Your task to perform on an android device: toggle javascript in the chrome app Image 0: 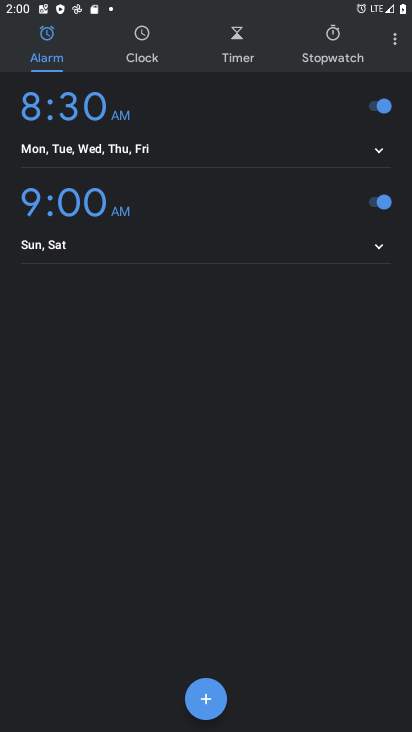
Step 0: press home button
Your task to perform on an android device: toggle javascript in the chrome app Image 1: 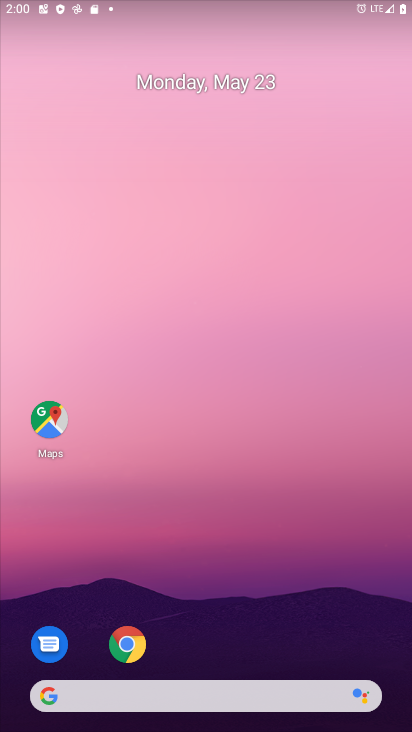
Step 1: drag from (290, 608) to (279, 92)
Your task to perform on an android device: toggle javascript in the chrome app Image 2: 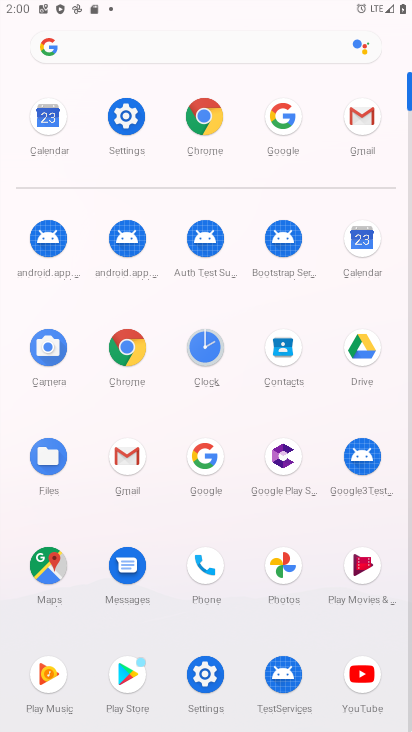
Step 2: click (211, 122)
Your task to perform on an android device: toggle javascript in the chrome app Image 3: 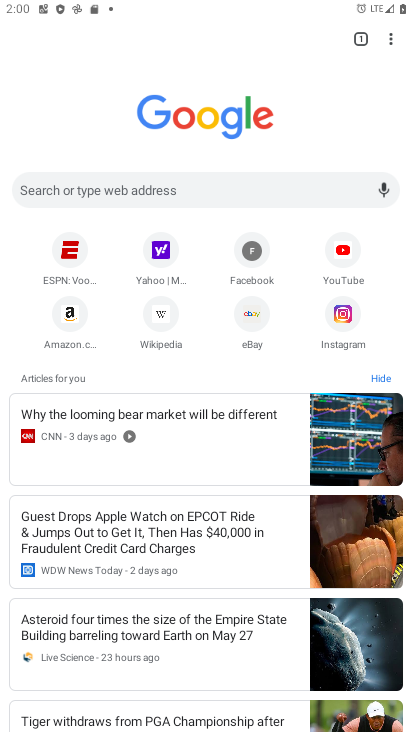
Step 3: click (390, 37)
Your task to perform on an android device: toggle javascript in the chrome app Image 4: 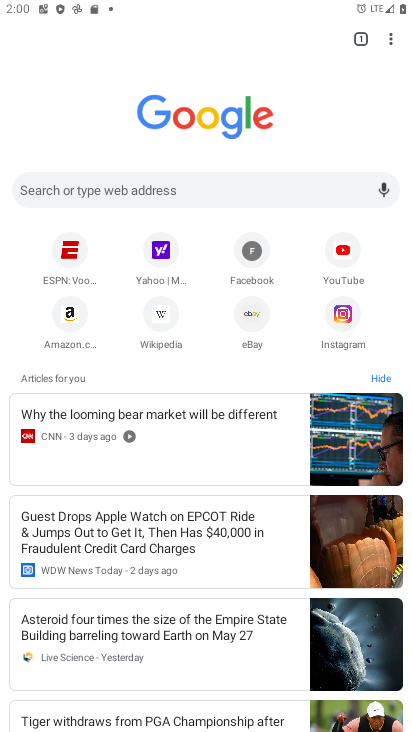
Step 4: click (392, 34)
Your task to perform on an android device: toggle javascript in the chrome app Image 5: 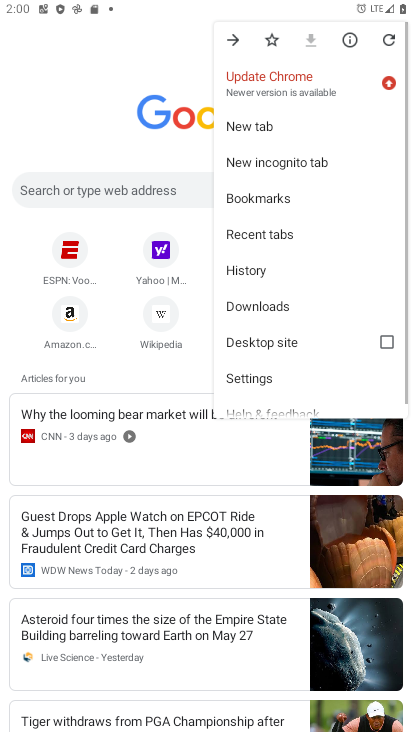
Step 5: click (258, 378)
Your task to perform on an android device: toggle javascript in the chrome app Image 6: 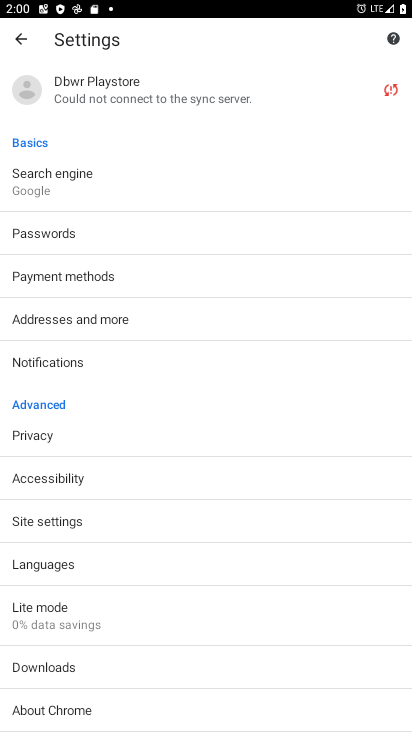
Step 6: click (92, 509)
Your task to perform on an android device: toggle javascript in the chrome app Image 7: 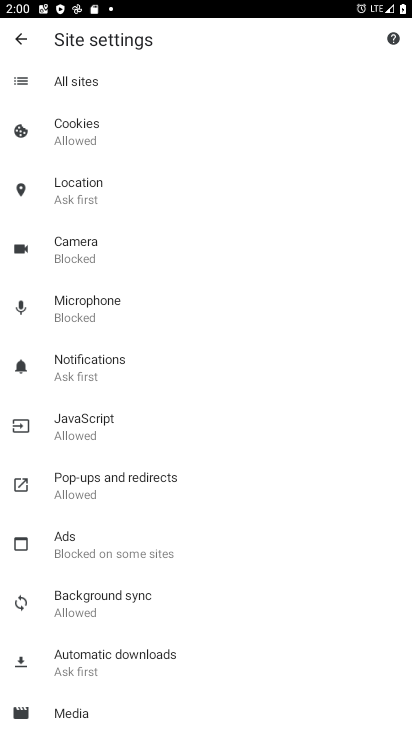
Step 7: click (112, 433)
Your task to perform on an android device: toggle javascript in the chrome app Image 8: 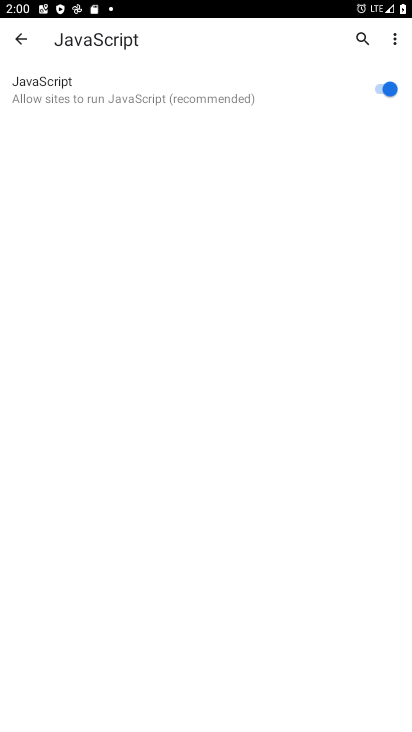
Step 8: click (346, 82)
Your task to perform on an android device: toggle javascript in the chrome app Image 9: 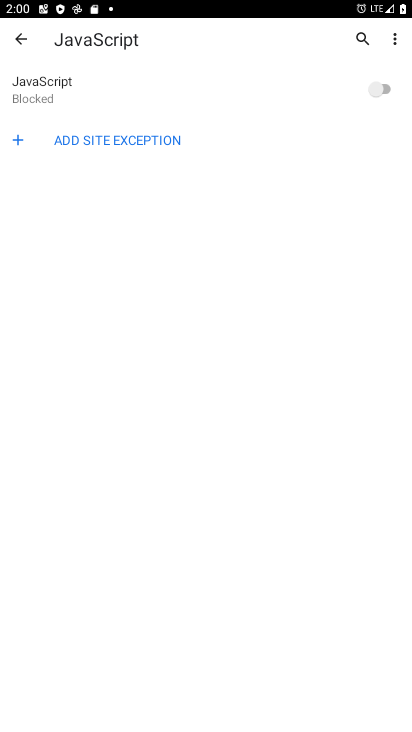
Step 9: task complete